Your task to perform on an android device: open device folders in google photos Image 0: 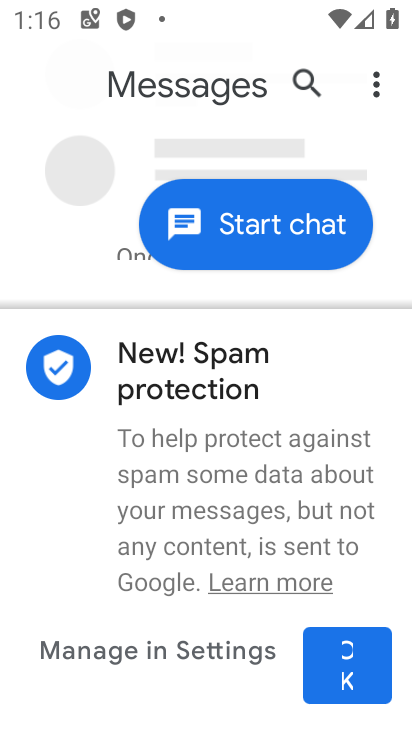
Step 0: press home button
Your task to perform on an android device: open device folders in google photos Image 1: 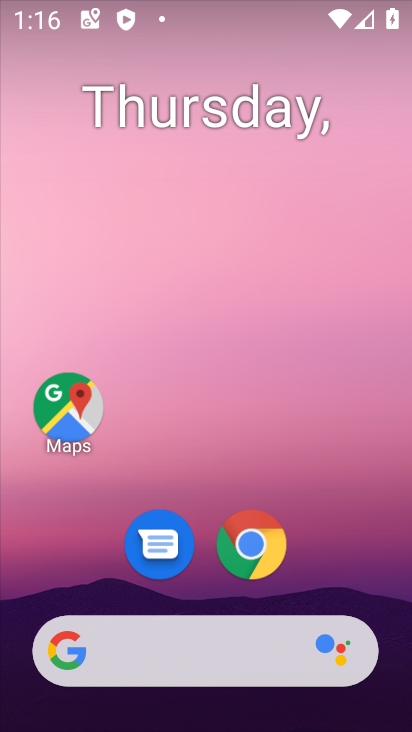
Step 1: drag from (206, 723) to (206, 85)
Your task to perform on an android device: open device folders in google photos Image 2: 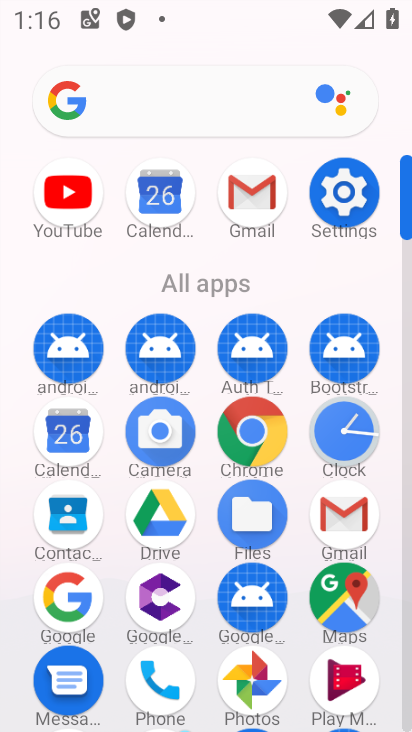
Step 2: click (259, 673)
Your task to perform on an android device: open device folders in google photos Image 3: 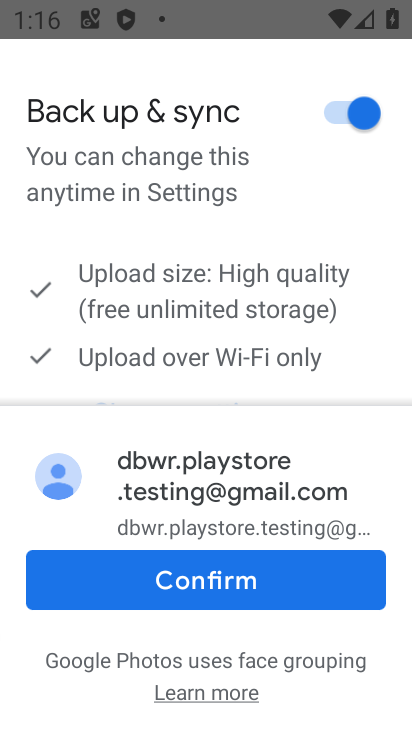
Step 3: click (231, 576)
Your task to perform on an android device: open device folders in google photos Image 4: 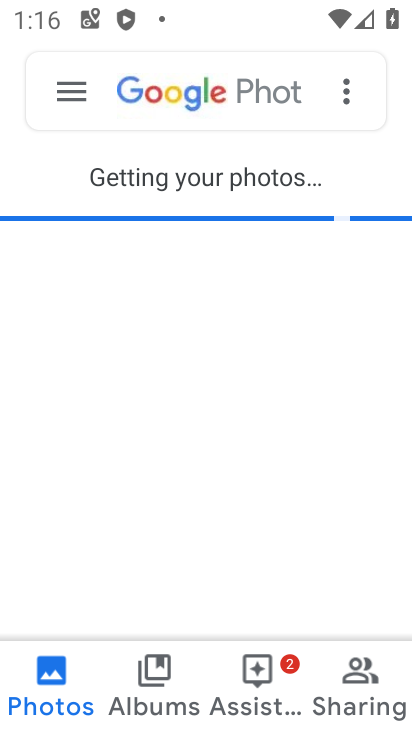
Step 4: click (66, 93)
Your task to perform on an android device: open device folders in google photos Image 5: 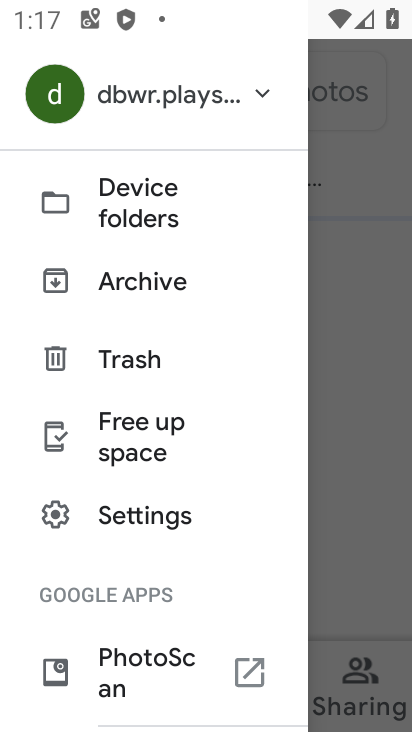
Step 5: click (123, 212)
Your task to perform on an android device: open device folders in google photos Image 6: 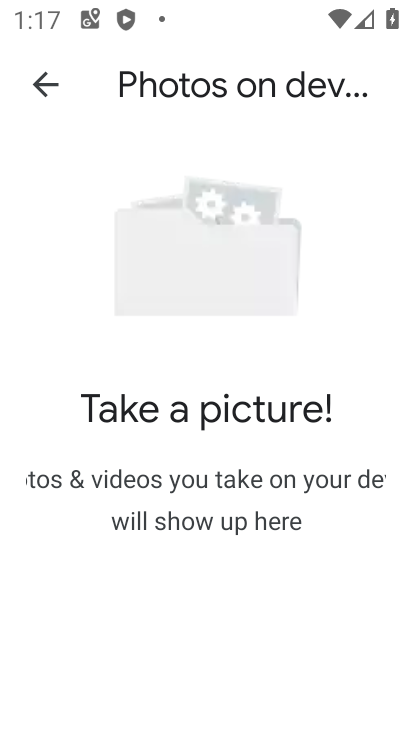
Step 6: task complete